Your task to perform on an android device: turn off priority inbox in the gmail app Image 0: 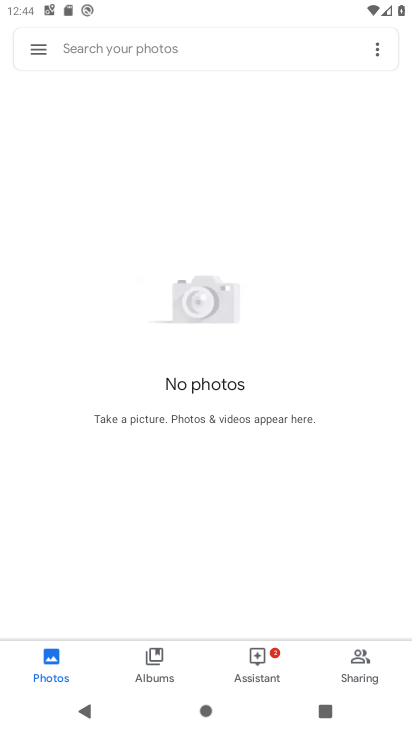
Step 0: press home button
Your task to perform on an android device: turn off priority inbox in the gmail app Image 1: 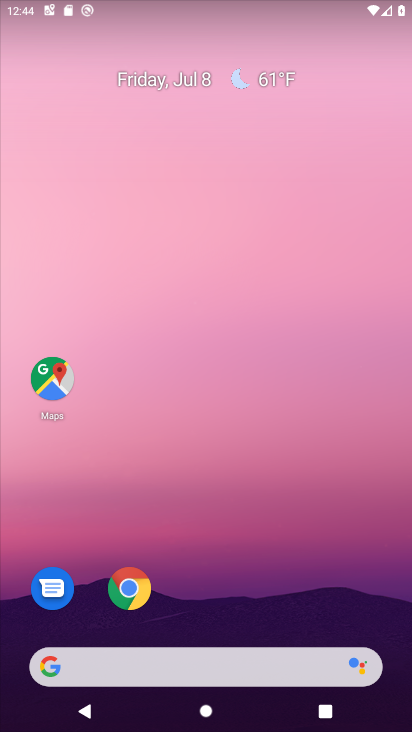
Step 1: drag from (314, 585) to (382, 212)
Your task to perform on an android device: turn off priority inbox in the gmail app Image 2: 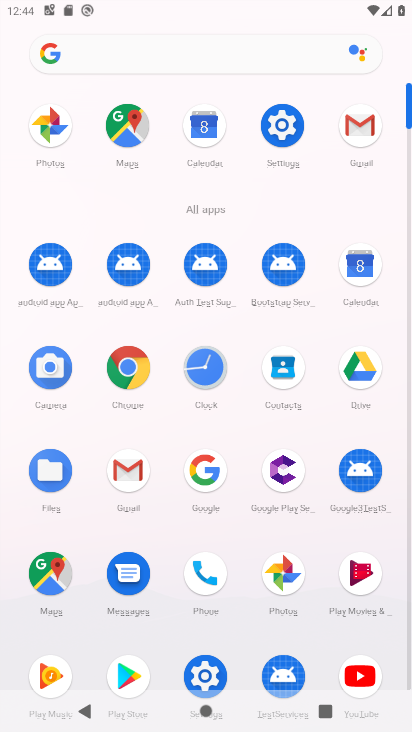
Step 2: click (352, 126)
Your task to perform on an android device: turn off priority inbox in the gmail app Image 3: 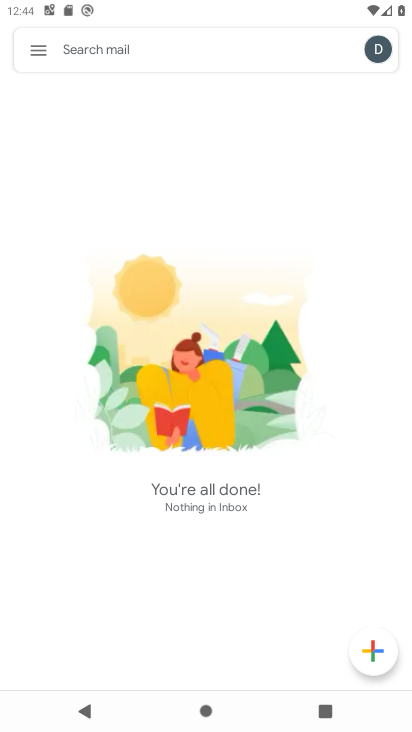
Step 3: click (35, 49)
Your task to perform on an android device: turn off priority inbox in the gmail app Image 4: 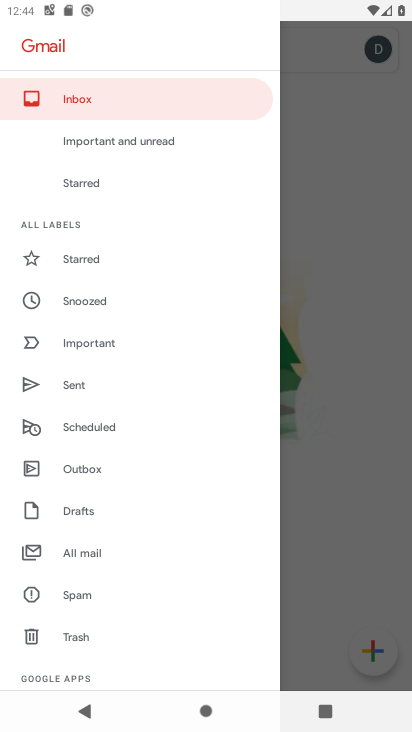
Step 4: drag from (106, 653) to (166, 268)
Your task to perform on an android device: turn off priority inbox in the gmail app Image 5: 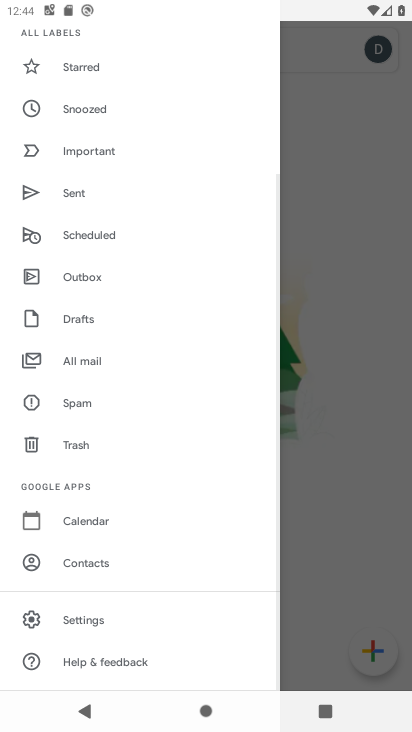
Step 5: click (98, 608)
Your task to perform on an android device: turn off priority inbox in the gmail app Image 6: 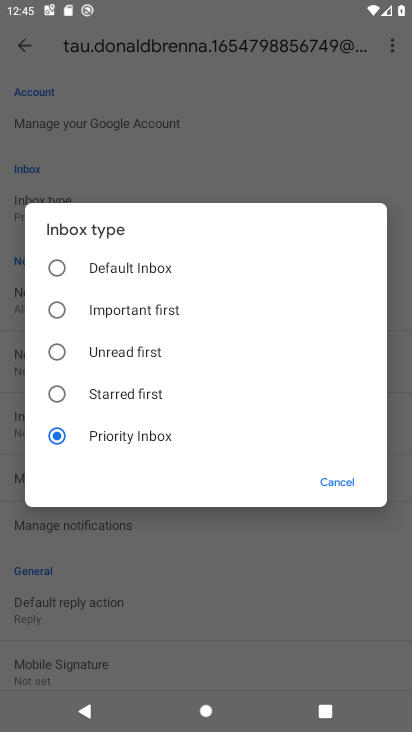
Step 6: click (58, 271)
Your task to perform on an android device: turn off priority inbox in the gmail app Image 7: 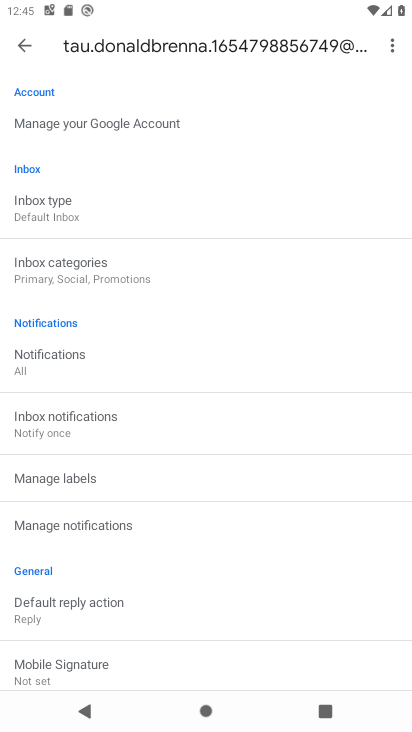
Step 7: task complete